Your task to perform on an android device: move a message to another label in the gmail app Image 0: 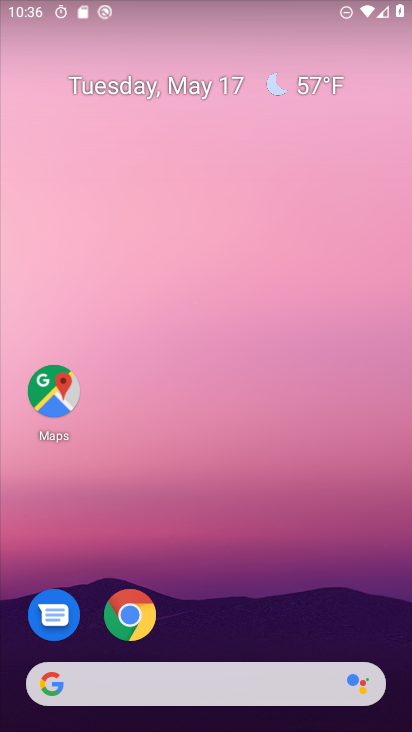
Step 0: drag from (279, 427) to (279, 67)
Your task to perform on an android device: move a message to another label in the gmail app Image 1: 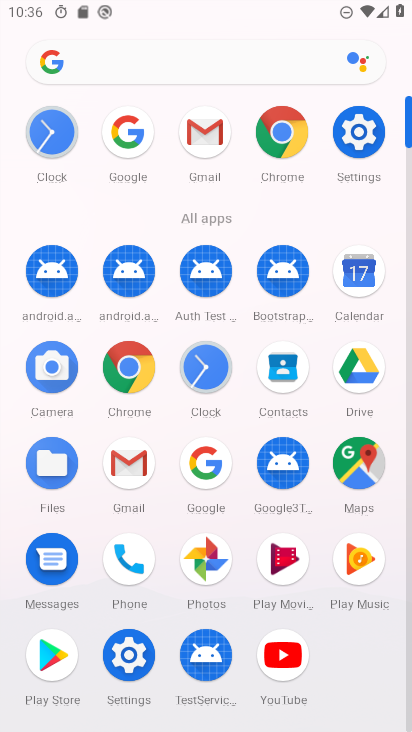
Step 1: click (204, 144)
Your task to perform on an android device: move a message to another label in the gmail app Image 2: 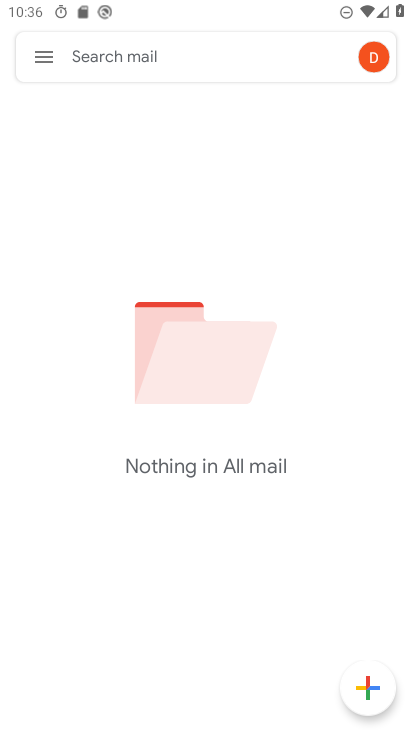
Step 2: click (51, 50)
Your task to perform on an android device: move a message to another label in the gmail app Image 3: 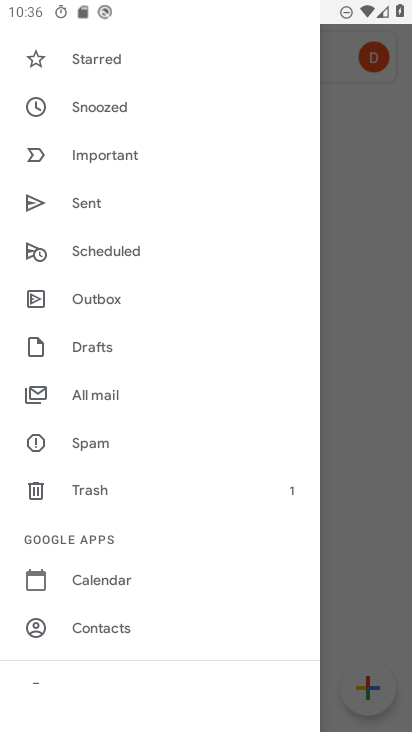
Step 3: click (135, 402)
Your task to perform on an android device: move a message to another label in the gmail app Image 4: 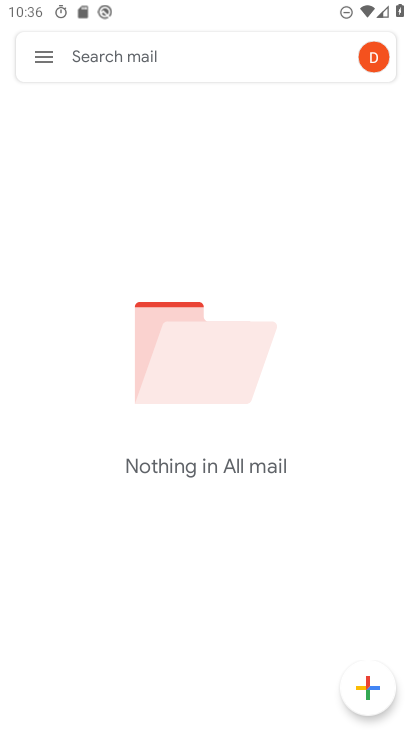
Step 4: task complete